Your task to perform on an android device: toggle airplane mode Image 0: 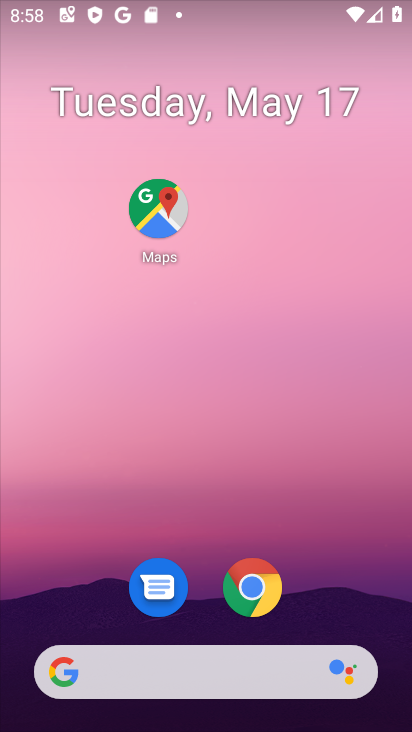
Step 0: drag from (21, 657) to (222, 417)
Your task to perform on an android device: toggle airplane mode Image 1: 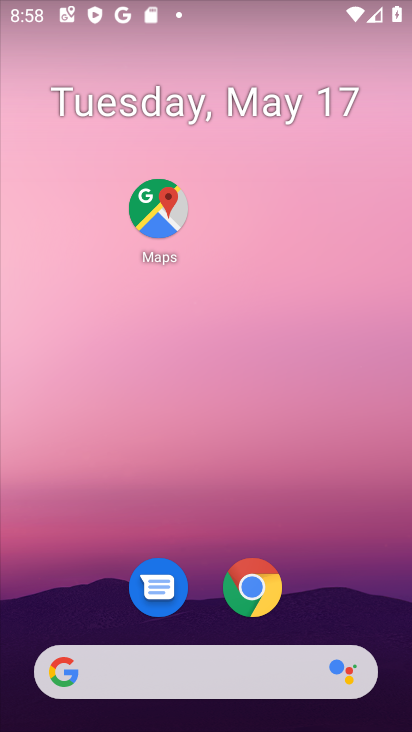
Step 1: drag from (48, 641) to (308, 379)
Your task to perform on an android device: toggle airplane mode Image 2: 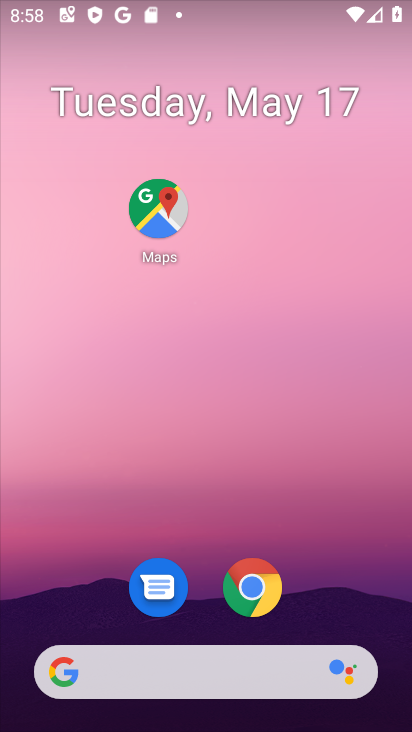
Step 2: drag from (6, 662) to (297, 246)
Your task to perform on an android device: toggle airplane mode Image 3: 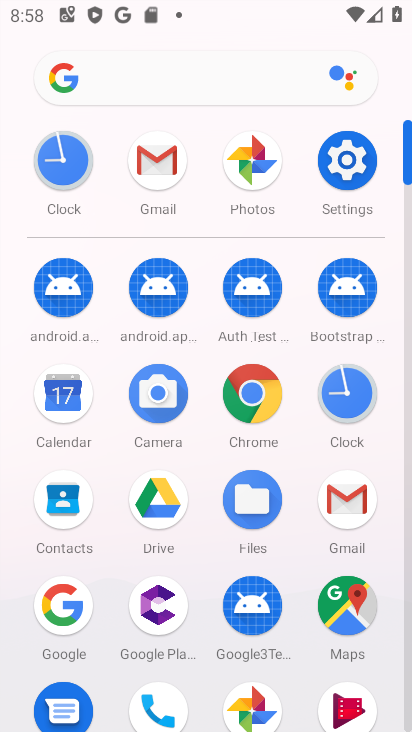
Step 3: click (355, 165)
Your task to perform on an android device: toggle airplane mode Image 4: 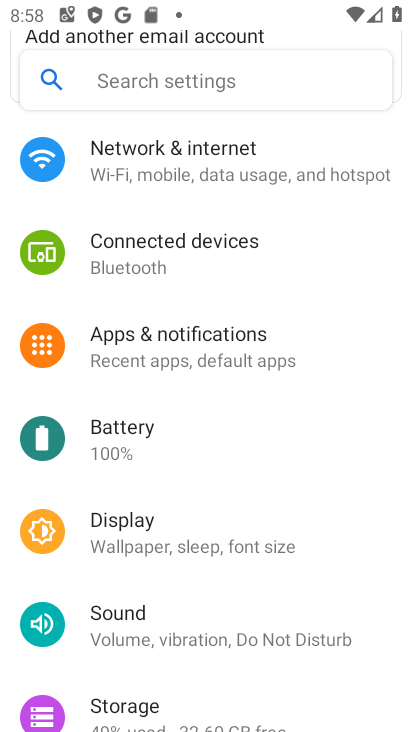
Step 4: click (242, 177)
Your task to perform on an android device: toggle airplane mode Image 5: 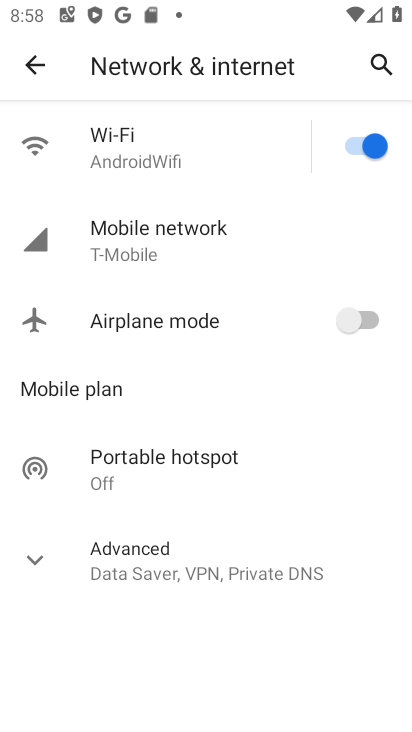
Step 5: click (347, 322)
Your task to perform on an android device: toggle airplane mode Image 6: 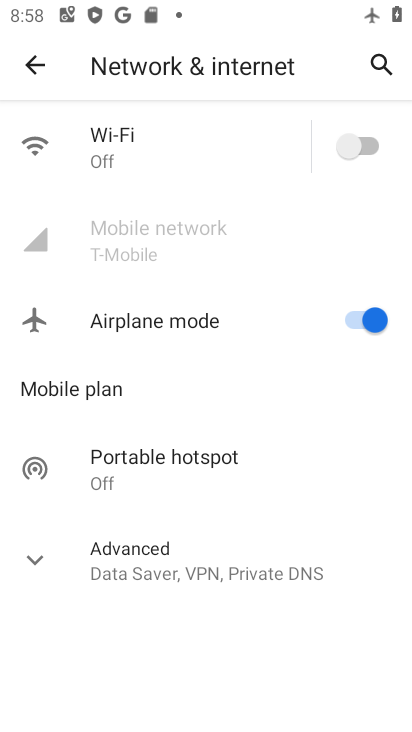
Step 6: task complete